Your task to perform on an android device: Open CNN.com Image 0: 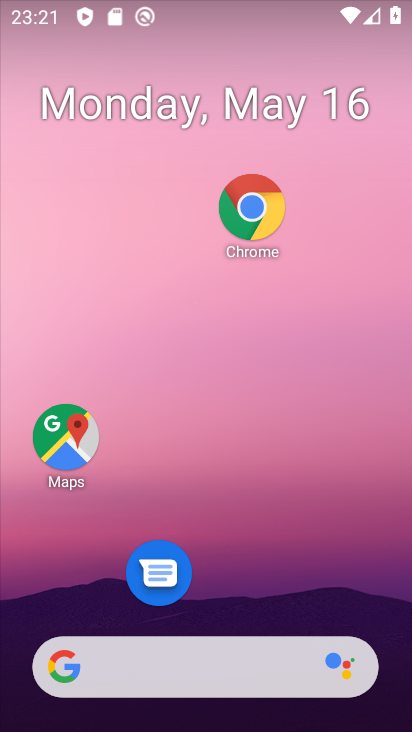
Step 0: drag from (279, 631) to (243, 57)
Your task to perform on an android device: Open CNN.com Image 1: 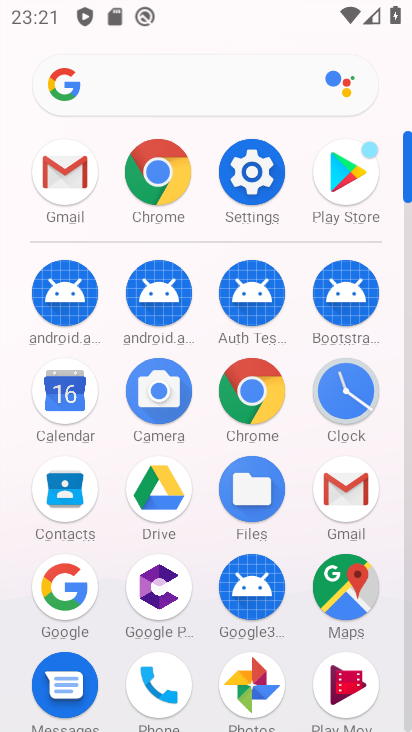
Step 1: click (261, 413)
Your task to perform on an android device: Open CNN.com Image 2: 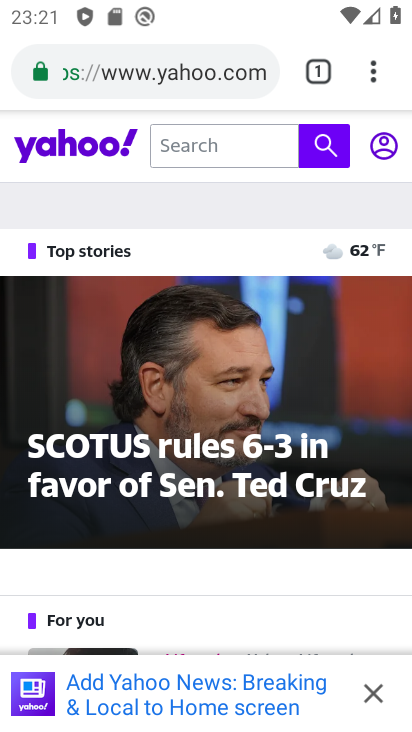
Step 2: click (190, 65)
Your task to perform on an android device: Open CNN.com Image 3: 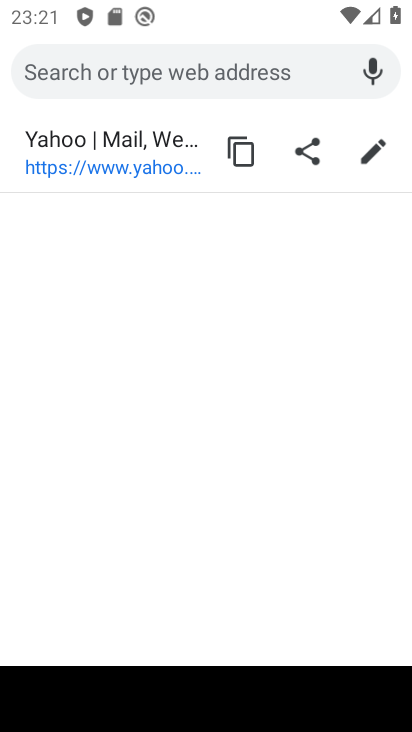
Step 3: type "cnn.com"
Your task to perform on an android device: Open CNN.com Image 4: 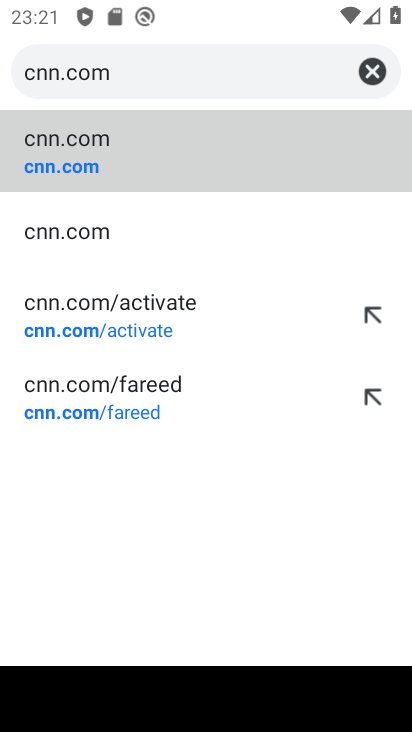
Step 4: click (97, 164)
Your task to perform on an android device: Open CNN.com Image 5: 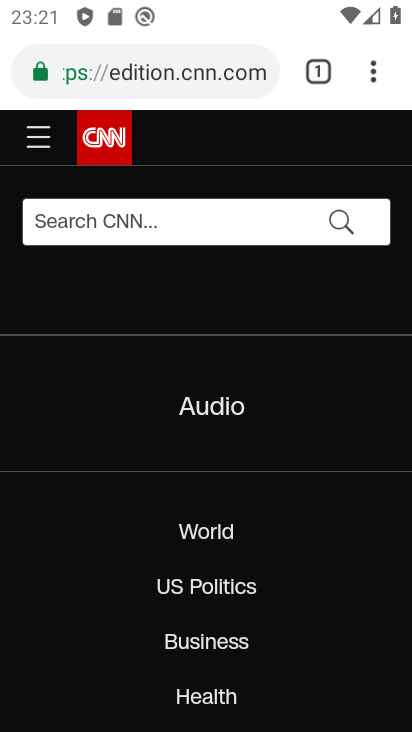
Step 5: task complete